Your task to perform on an android device: read, delete, or share a saved page in the chrome app Image 0: 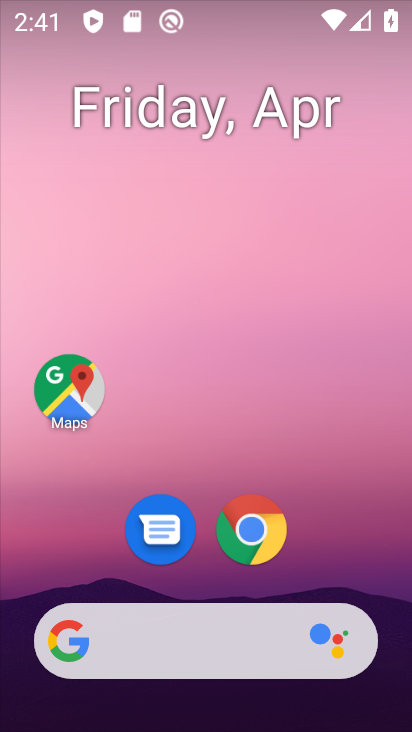
Step 0: drag from (245, 430) to (225, 105)
Your task to perform on an android device: read, delete, or share a saved page in the chrome app Image 1: 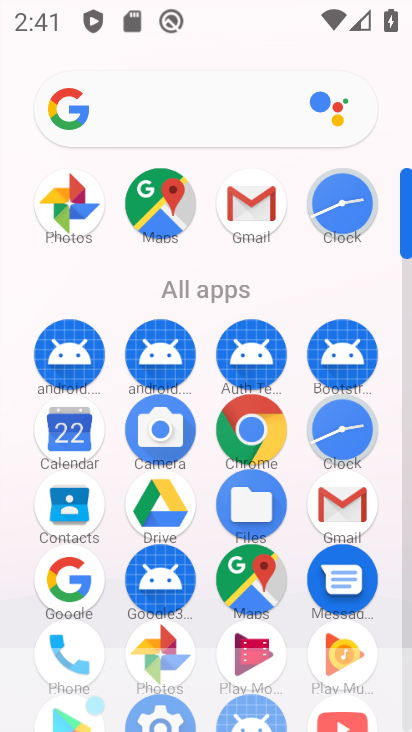
Step 1: drag from (222, 534) to (257, 290)
Your task to perform on an android device: read, delete, or share a saved page in the chrome app Image 2: 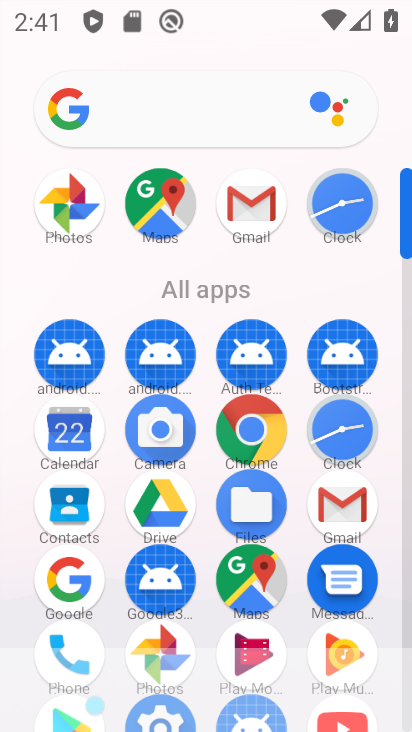
Step 2: click (409, 599)
Your task to perform on an android device: read, delete, or share a saved page in the chrome app Image 3: 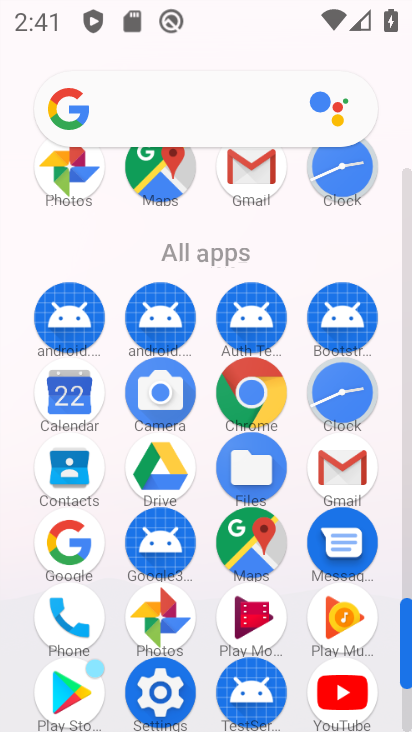
Step 3: click (275, 403)
Your task to perform on an android device: read, delete, or share a saved page in the chrome app Image 4: 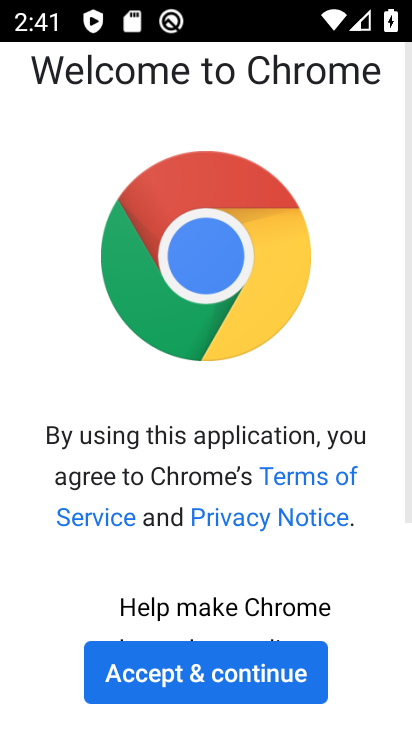
Step 4: click (254, 694)
Your task to perform on an android device: read, delete, or share a saved page in the chrome app Image 5: 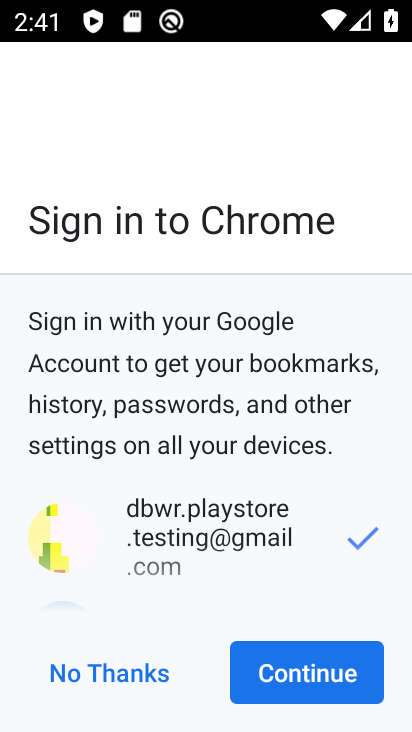
Step 5: click (268, 678)
Your task to perform on an android device: read, delete, or share a saved page in the chrome app Image 6: 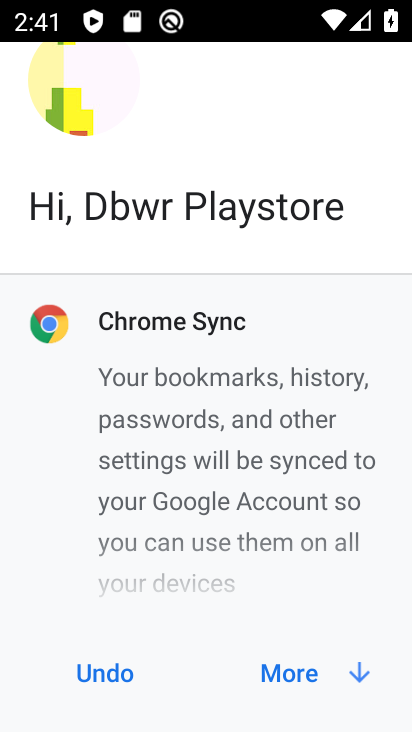
Step 6: click (334, 680)
Your task to perform on an android device: read, delete, or share a saved page in the chrome app Image 7: 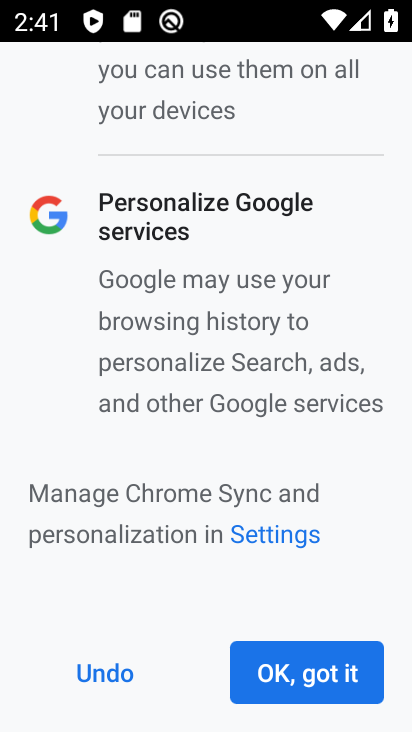
Step 7: click (341, 676)
Your task to perform on an android device: read, delete, or share a saved page in the chrome app Image 8: 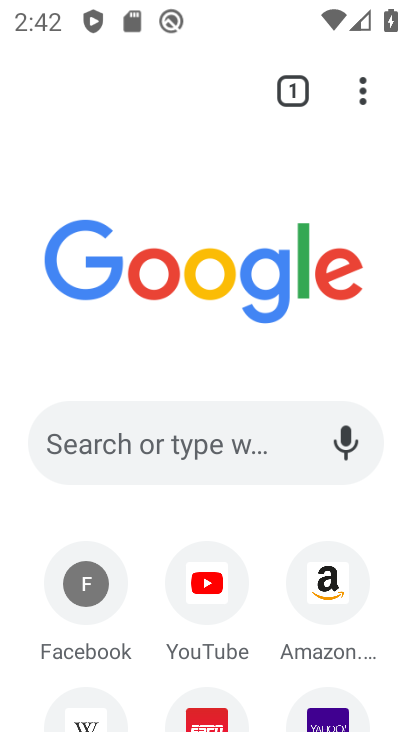
Step 8: click (360, 103)
Your task to perform on an android device: read, delete, or share a saved page in the chrome app Image 9: 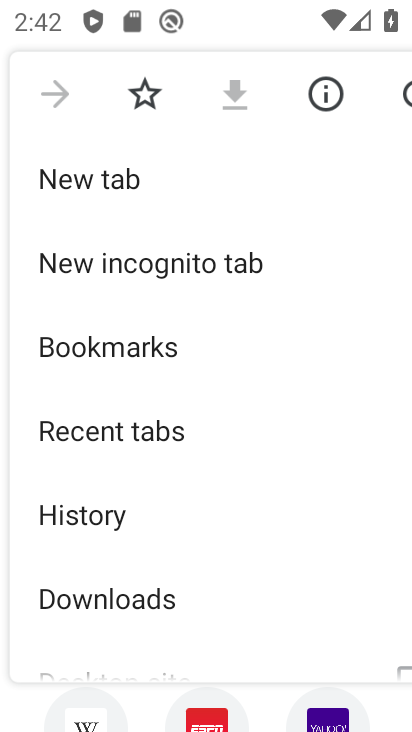
Step 9: drag from (211, 468) to (220, 179)
Your task to perform on an android device: read, delete, or share a saved page in the chrome app Image 10: 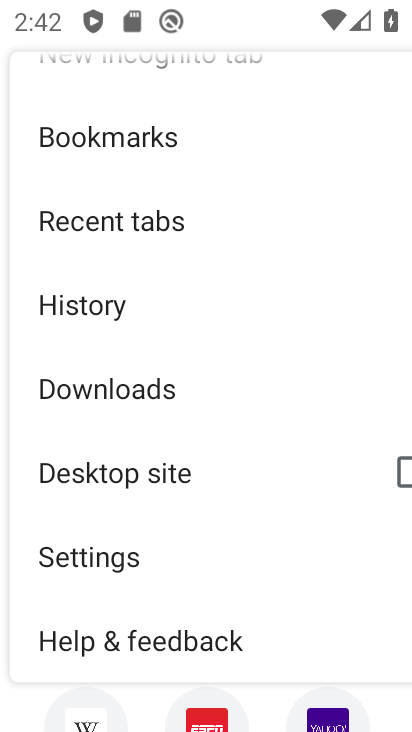
Step 10: drag from (182, 487) to (213, 199)
Your task to perform on an android device: read, delete, or share a saved page in the chrome app Image 11: 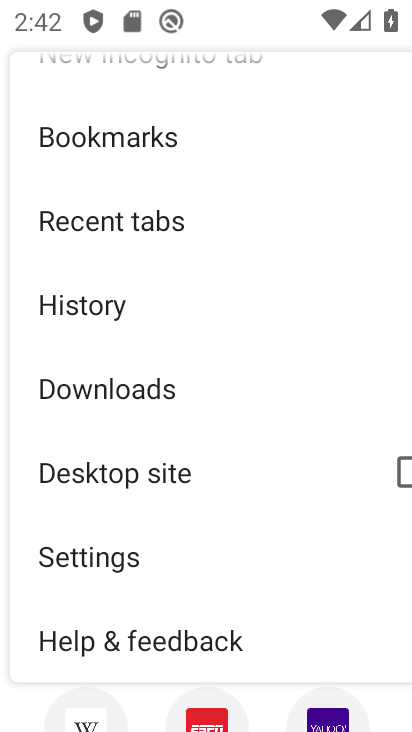
Step 11: drag from (193, 463) to (200, 187)
Your task to perform on an android device: read, delete, or share a saved page in the chrome app Image 12: 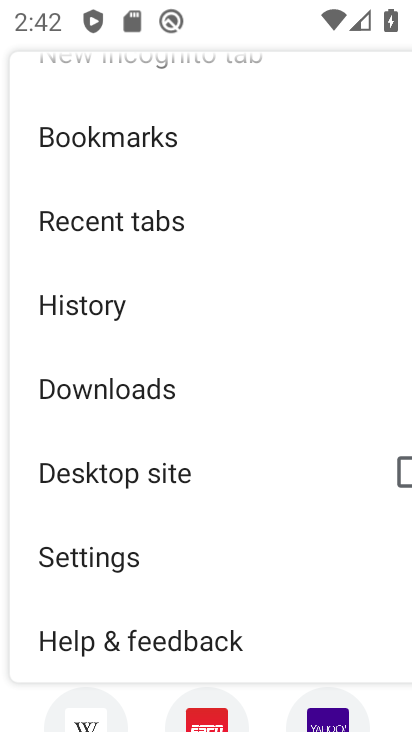
Step 12: drag from (214, 422) to (239, 282)
Your task to perform on an android device: read, delete, or share a saved page in the chrome app Image 13: 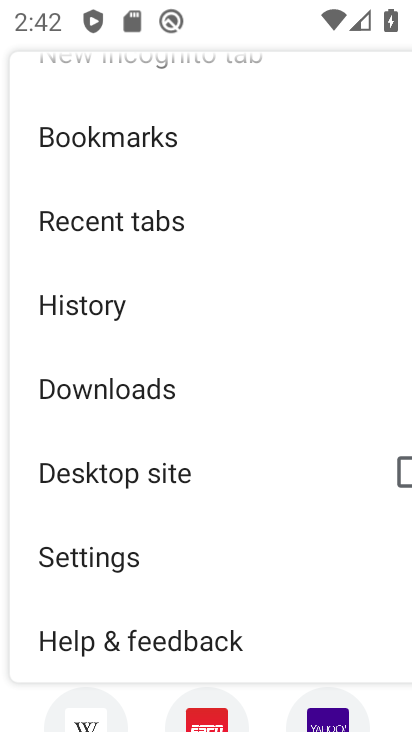
Step 13: drag from (176, 534) to (202, 159)
Your task to perform on an android device: read, delete, or share a saved page in the chrome app Image 14: 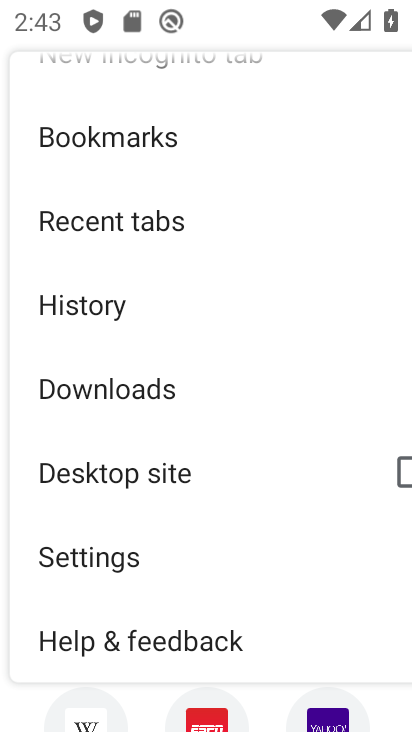
Step 14: click (152, 384)
Your task to perform on an android device: read, delete, or share a saved page in the chrome app Image 15: 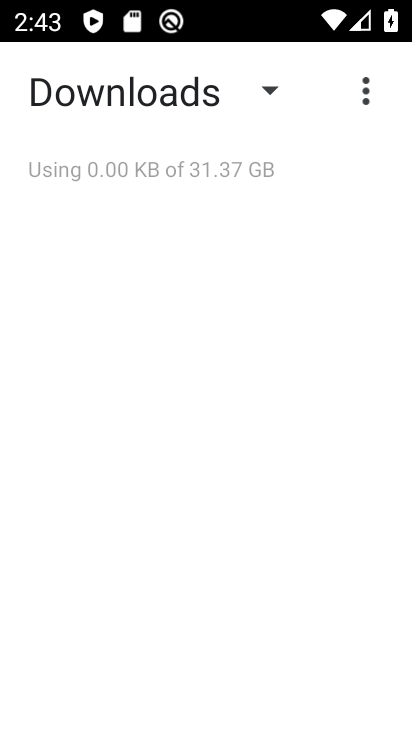
Step 15: click (249, 84)
Your task to perform on an android device: read, delete, or share a saved page in the chrome app Image 16: 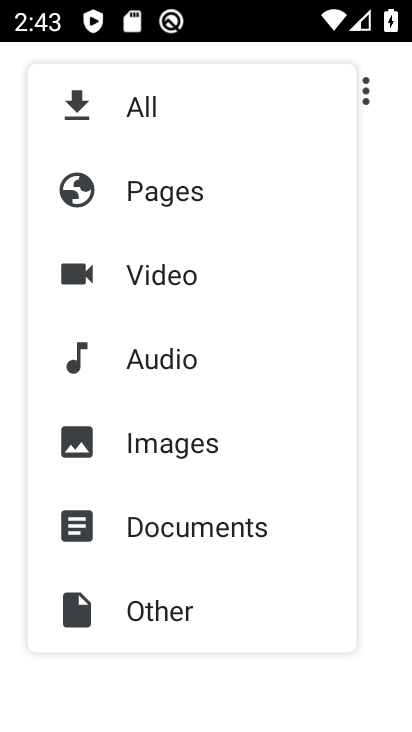
Step 16: click (163, 209)
Your task to perform on an android device: read, delete, or share a saved page in the chrome app Image 17: 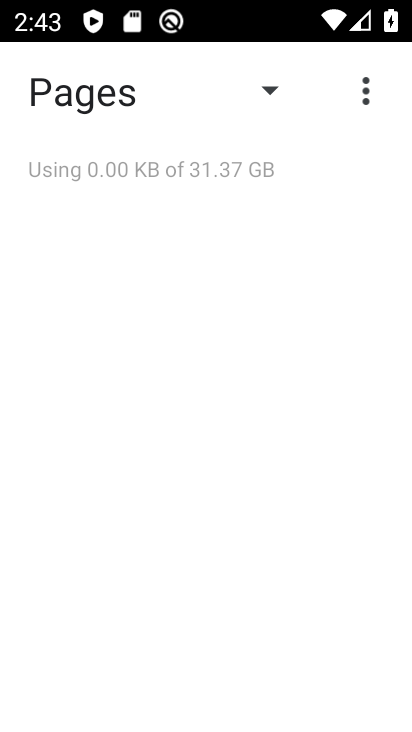
Step 17: task complete